Your task to perform on an android device: see creations saved in the google photos Image 0: 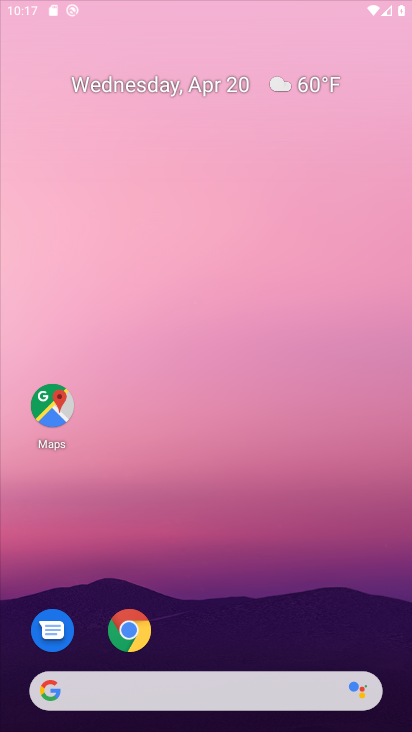
Step 0: drag from (236, 169) to (237, 272)
Your task to perform on an android device: see creations saved in the google photos Image 1: 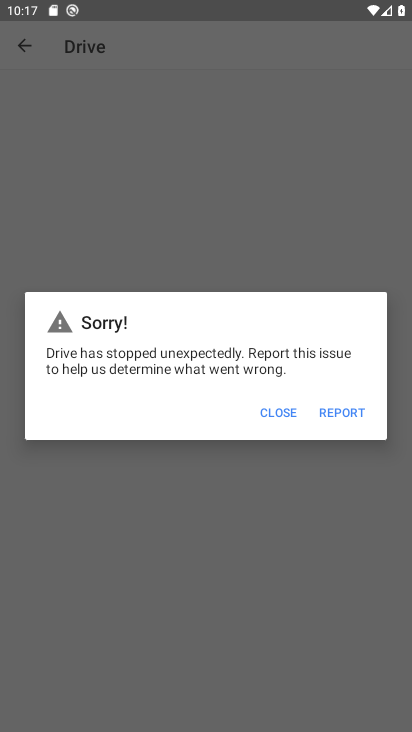
Step 1: press home button
Your task to perform on an android device: see creations saved in the google photos Image 2: 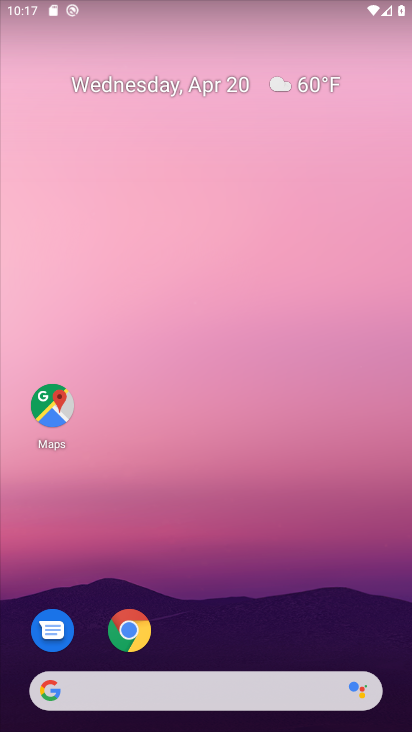
Step 2: drag from (255, 650) to (268, 302)
Your task to perform on an android device: see creations saved in the google photos Image 3: 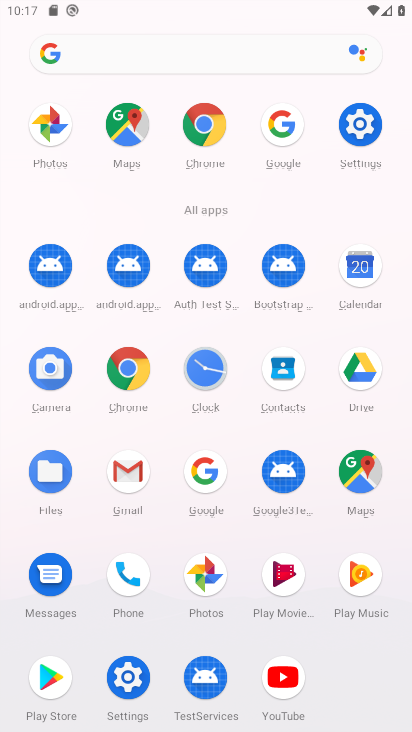
Step 3: click (202, 572)
Your task to perform on an android device: see creations saved in the google photos Image 4: 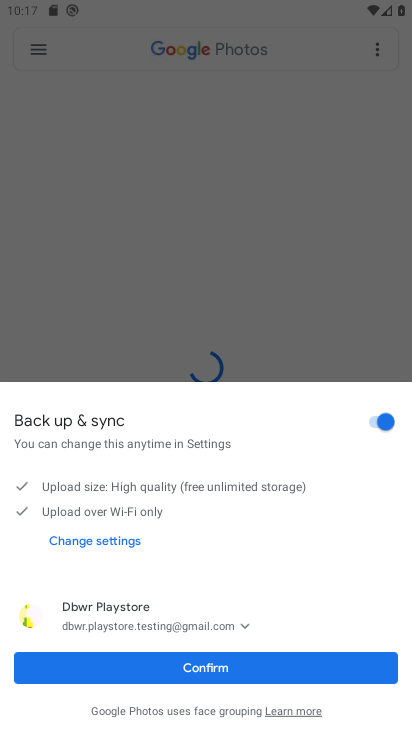
Step 4: click (274, 664)
Your task to perform on an android device: see creations saved in the google photos Image 5: 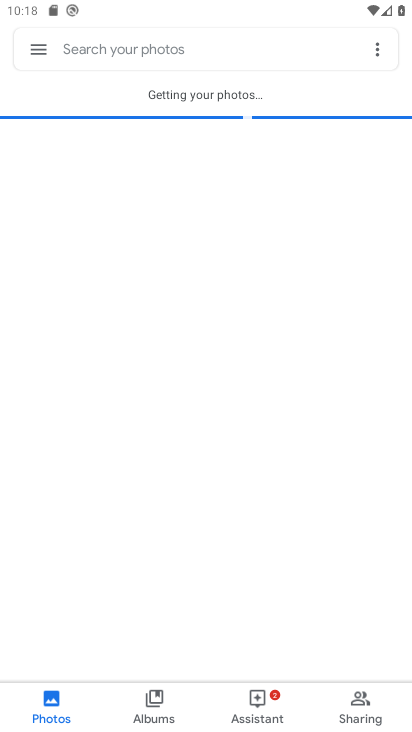
Step 5: click (146, 691)
Your task to perform on an android device: see creations saved in the google photos Image 6: 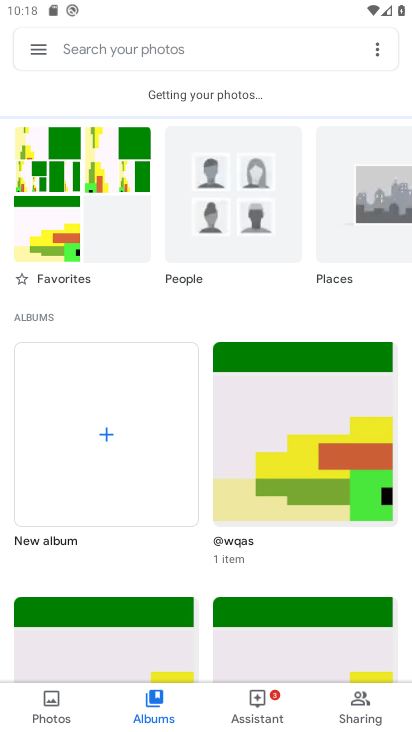
Step 6: click (50, 159)
Your task to perform on an android device: see creations saved in the google photos Image 7: 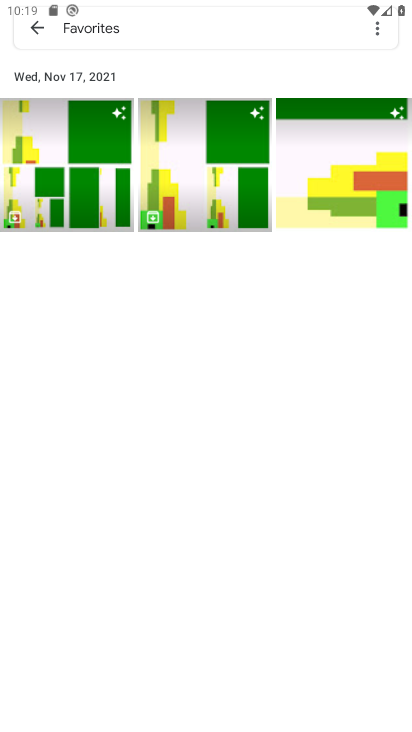
Step 7: click (50, 159)
Your task to perform on an android device: see creations saved in the google photos Image 8: 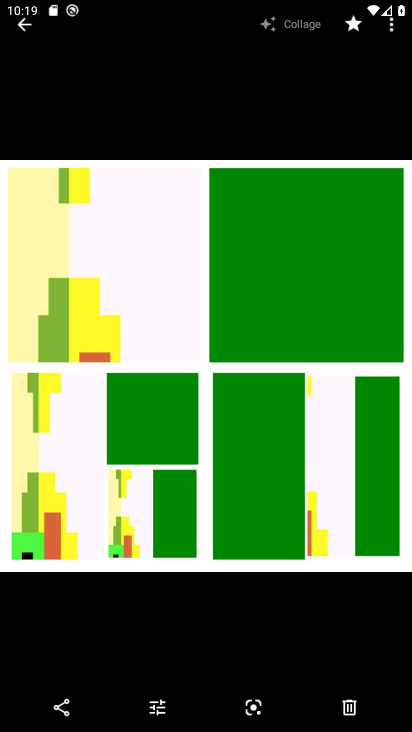
Step 8: task complete